Your task to perform on an android device: turn pop-ups off in chrome Image 0: 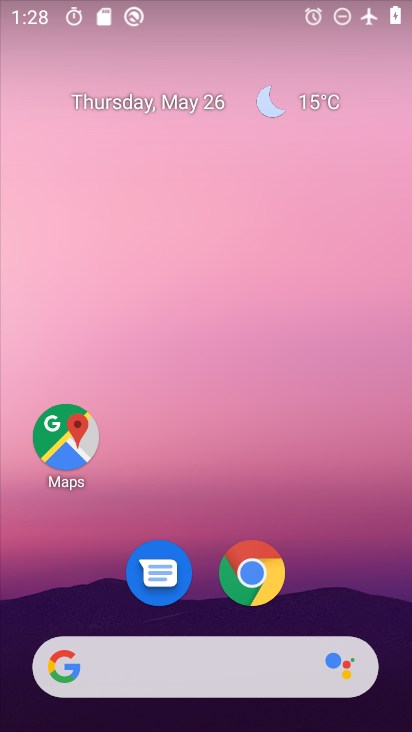
Step 0: click (258, 575)
Your task to perform on an android device: turn pop-ups off in chrome Image 1: 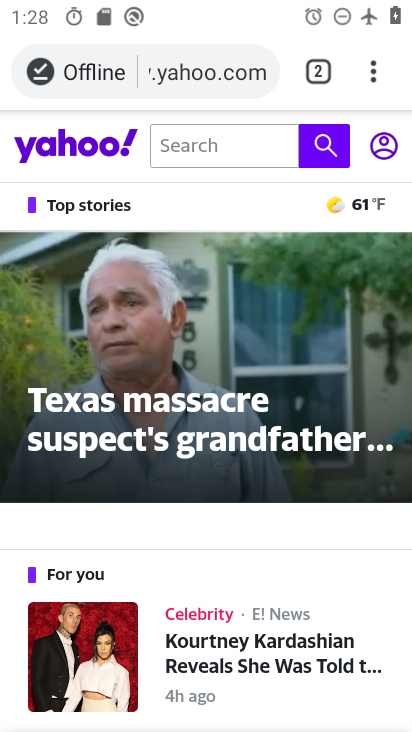
Step 1: click (371, 75)
Your task to perform on an android device: turn pop-ups off in chrome Image 2: 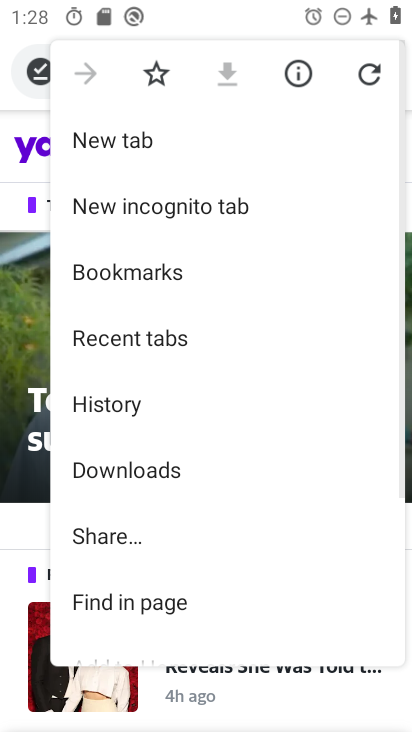
Step 2: drag from (178, 485) to (228, 190)
Your task to perform on an android device: turn pop-ups off in chrome Image 3: 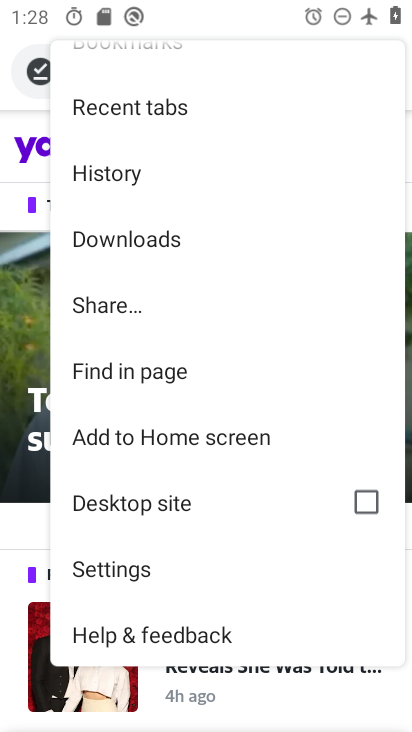
Step 3: click (98, 569)
Your task to perform on an android device: turn pop-ups off in chrome Image 4: 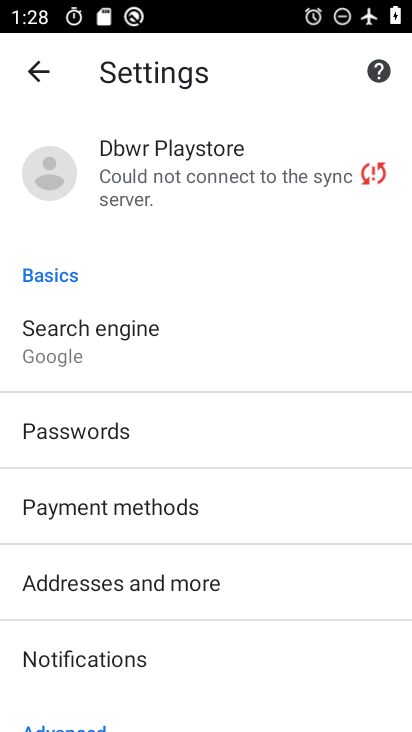
Step 4: drag from (223, 603) to (292, 191)
Your task to perform on an android device: turn pop-ups off in chrome Image 5: 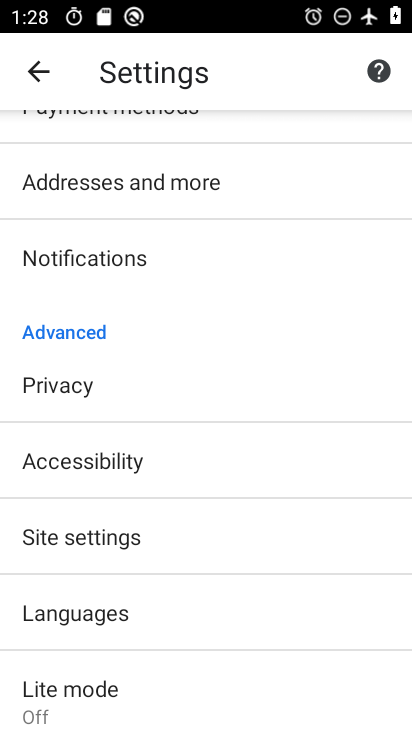
Step 5: click (108, 536)
Your task to perform on an android device: turn pop-ups off in chrome Image 6: 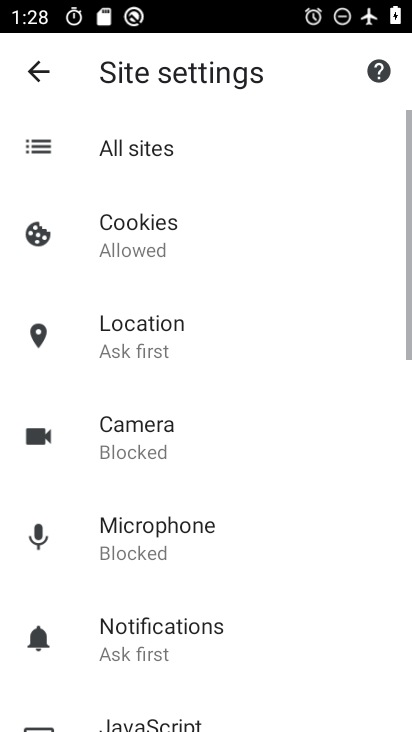
Step 6: drag from (248, 554) to (283, 261)
Your task to perform on an android device: turn pop-ups off in chrome Image 7: 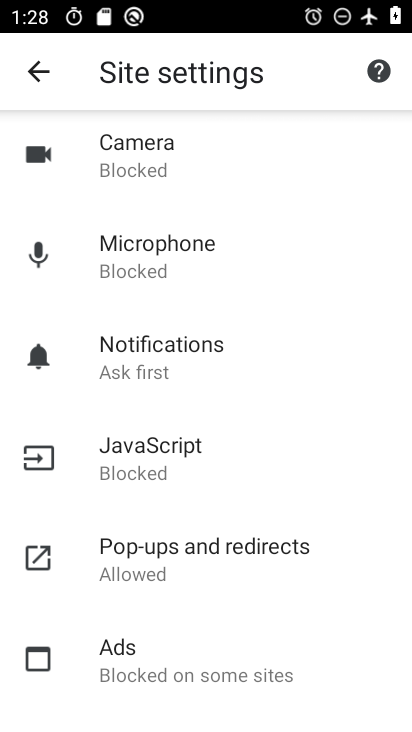
Step 7: click (143, 567)
Your task to perform on an android device: turn pop-ups off in chrome Image 8: 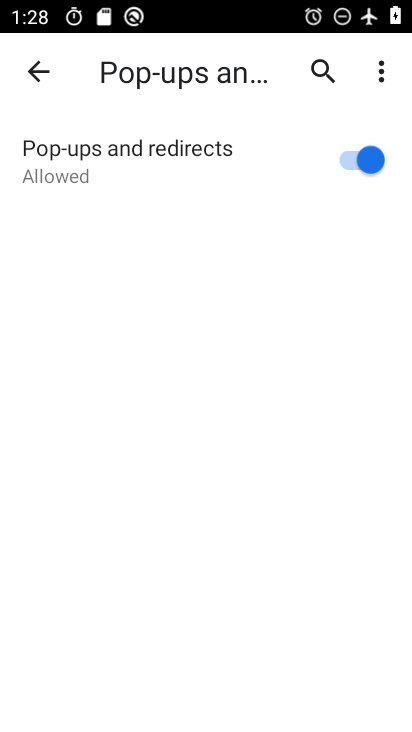
Step 8: click (338, 154)
Your task to perform on an android device: turn pop-ups off in chrome Image 9: 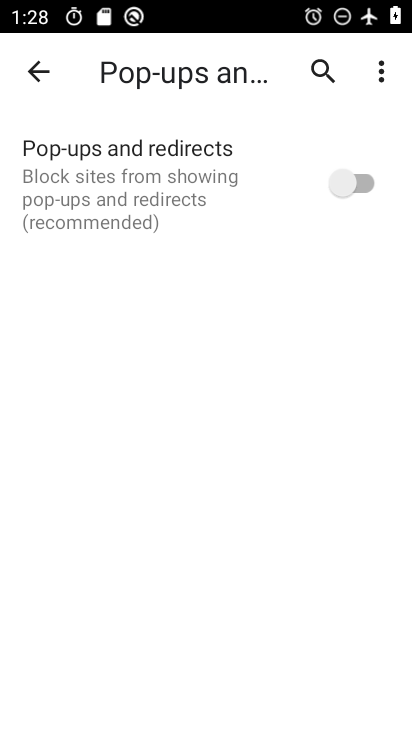
Step 9: task complete